Your task to perform on an android device: Is it going to rain today? Image 0: 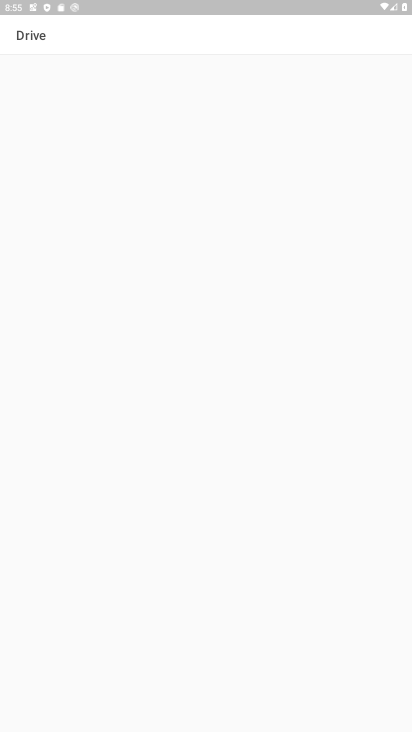
Step 0: drag from (238, 650) to (239, 548)
Your task to perform on an android device: Is it going to rain today? Image 1: 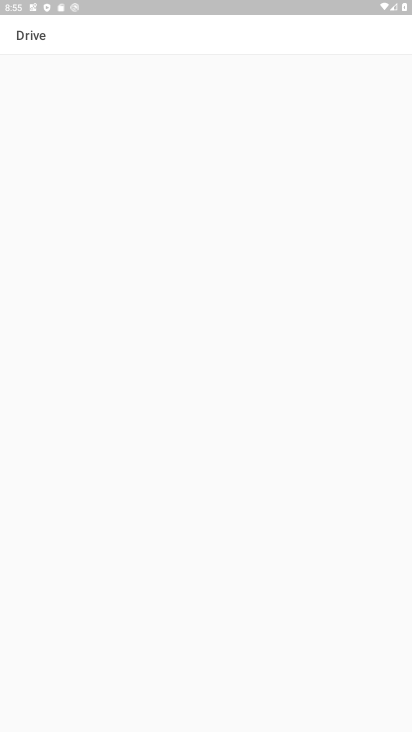
Step 1: press home button
Your task to perform on an android device: Is it going to rain today? Image 2: 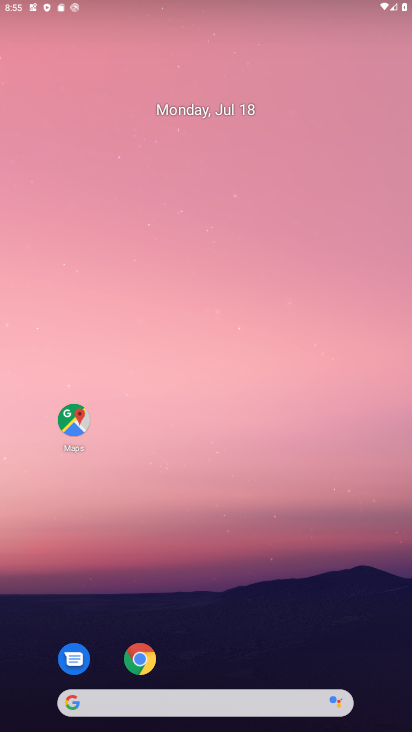
Step 2: drag from (321, 652) to (362, 0)
Your task to perform on an android device: Is it going to rain today? Image 3: 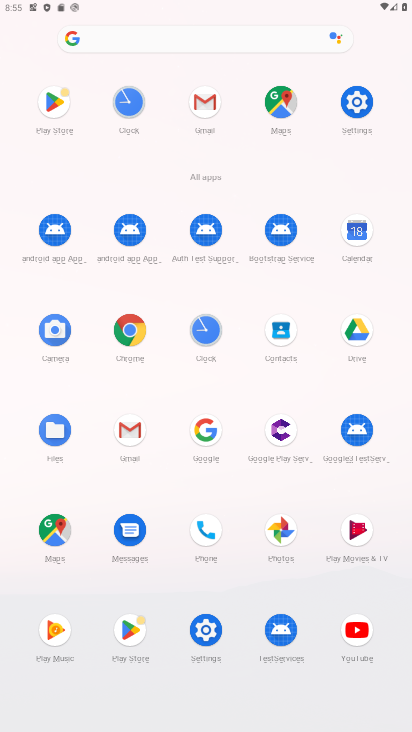
Step 3: click (208, 430)
Your task to perform on an android device: Is it going to rain today? Image 4: 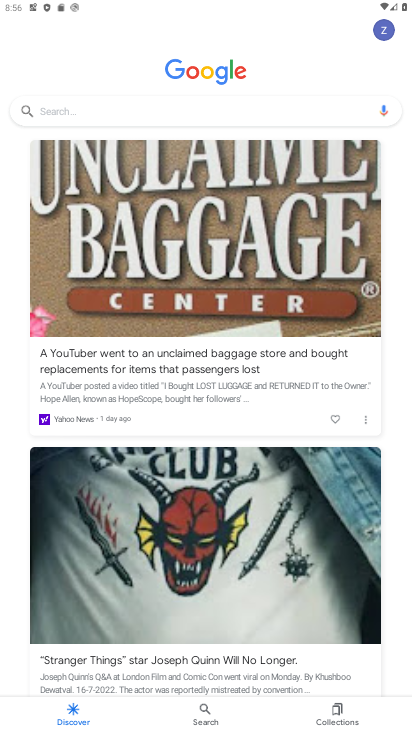
Step 4: click (123, 123)
Your task to perform on an android device: Is it going to rain today? Image 5: 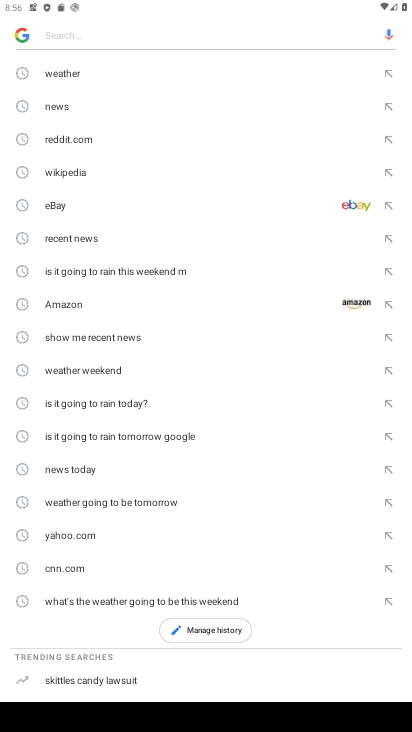
Step 5: click (53, 69)
Your task to perform on an android device: Is it going to rain today? Image 6: 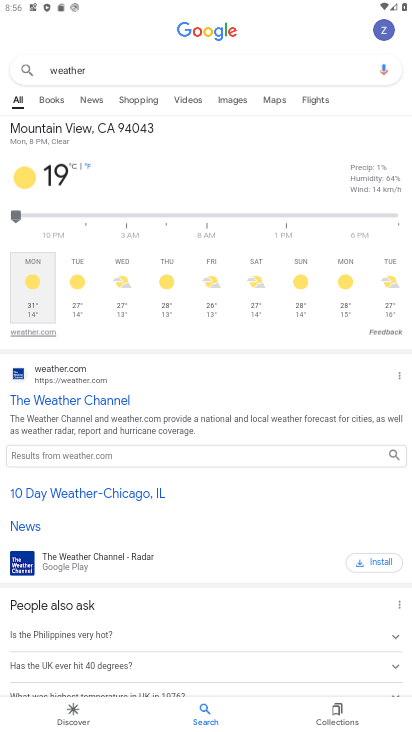
Step 6: task complete